Your task to perform on an android device: Open Android settings Image 0: 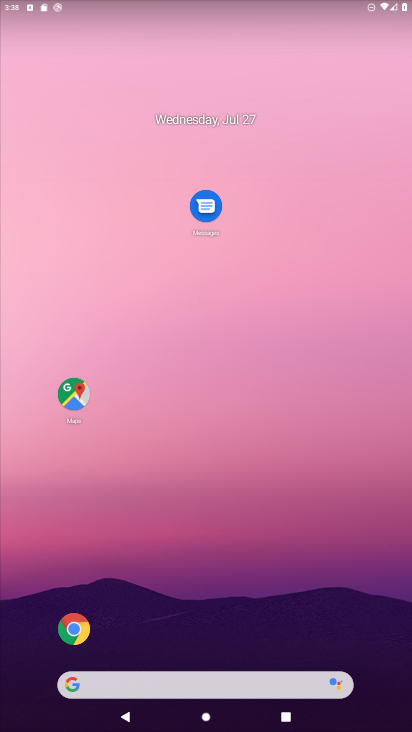
Step 0: drag from (215, 584) to (233, 15)
Your task to perform on an android device: Open Android settings Image 1: 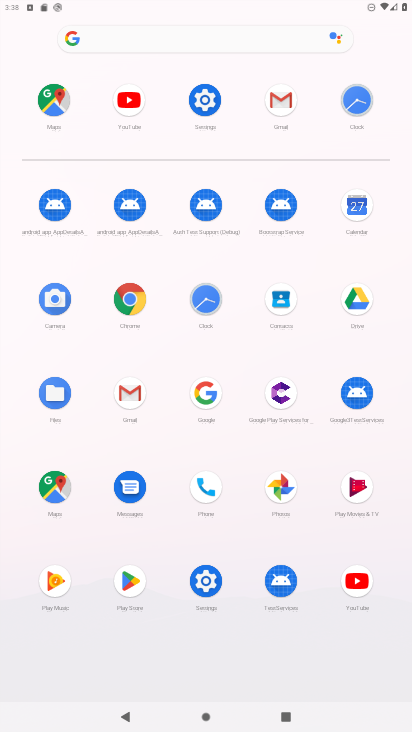
Step 1: click (200, 129)
Your task to perform on an android device: Open Android settings Image 2: 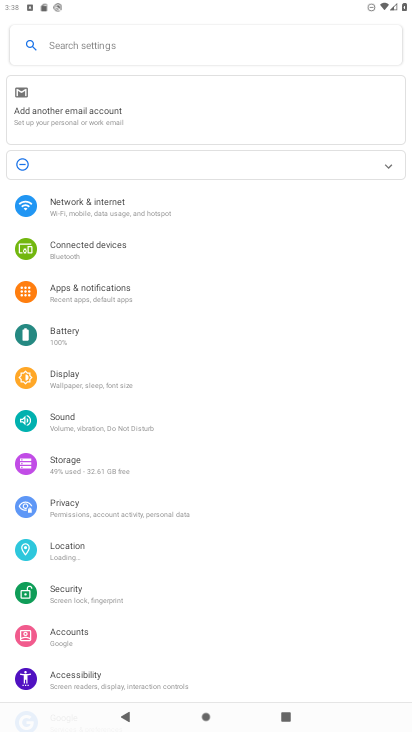
Step 2: task complete